Your task to perform on an android device: open app "Indeed Job Search" Image 0: 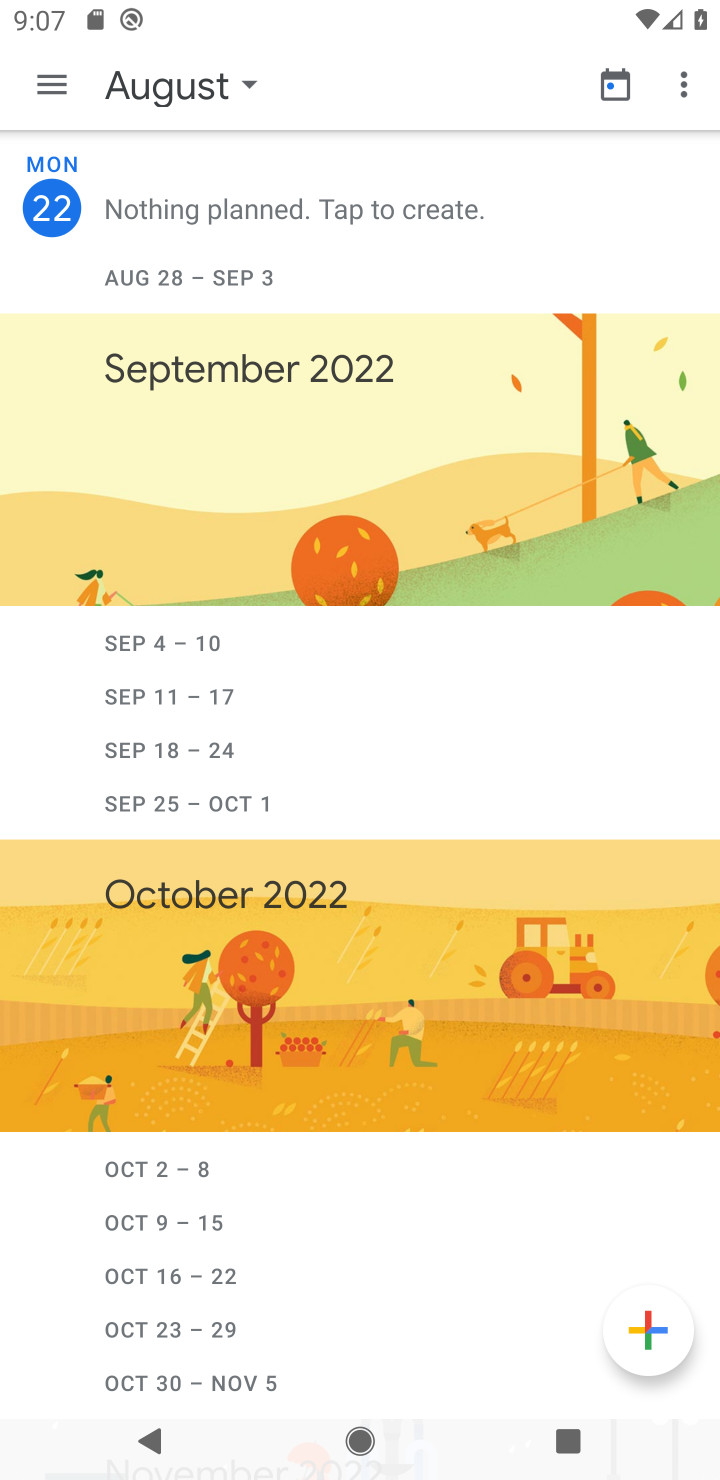
Step 0: press back button
Your task to perform on an android device: open app "Indeed Job Search" Image 1: 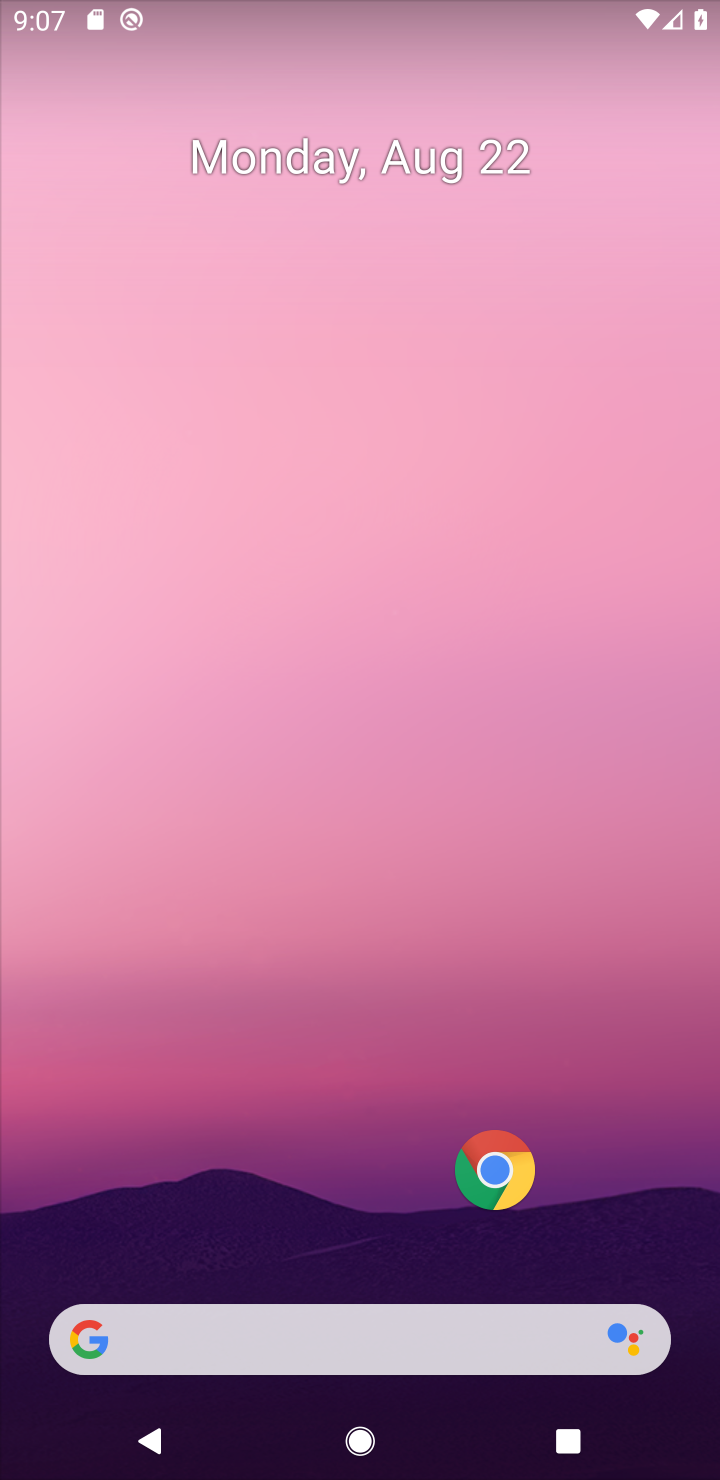
Step 1: drag from (376, 794) to (465, 107)
Your task to perform on an android device: open app "Indeed Job Search" Image 2: 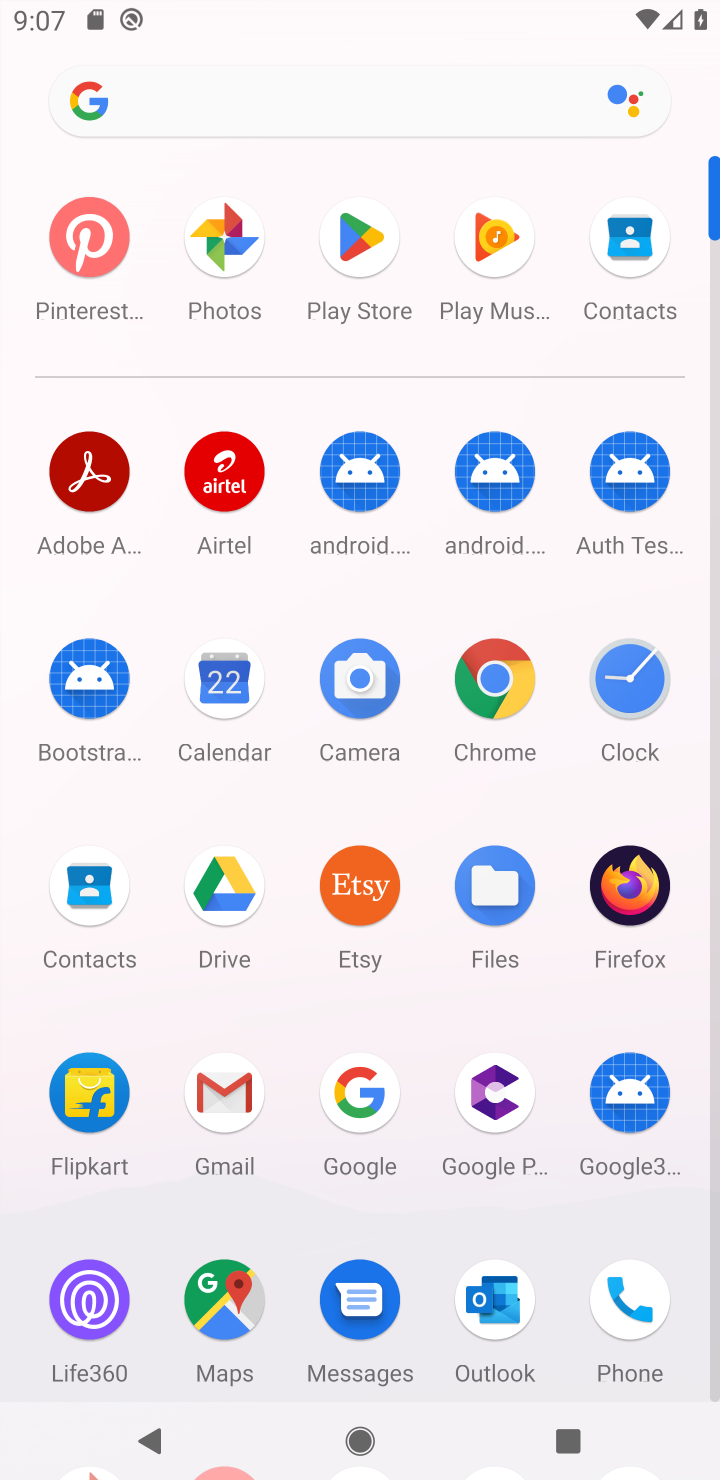
Step 2: click (369, 232)
Your task to perform on an android device: open app "Indeed Job Search" Image 3: 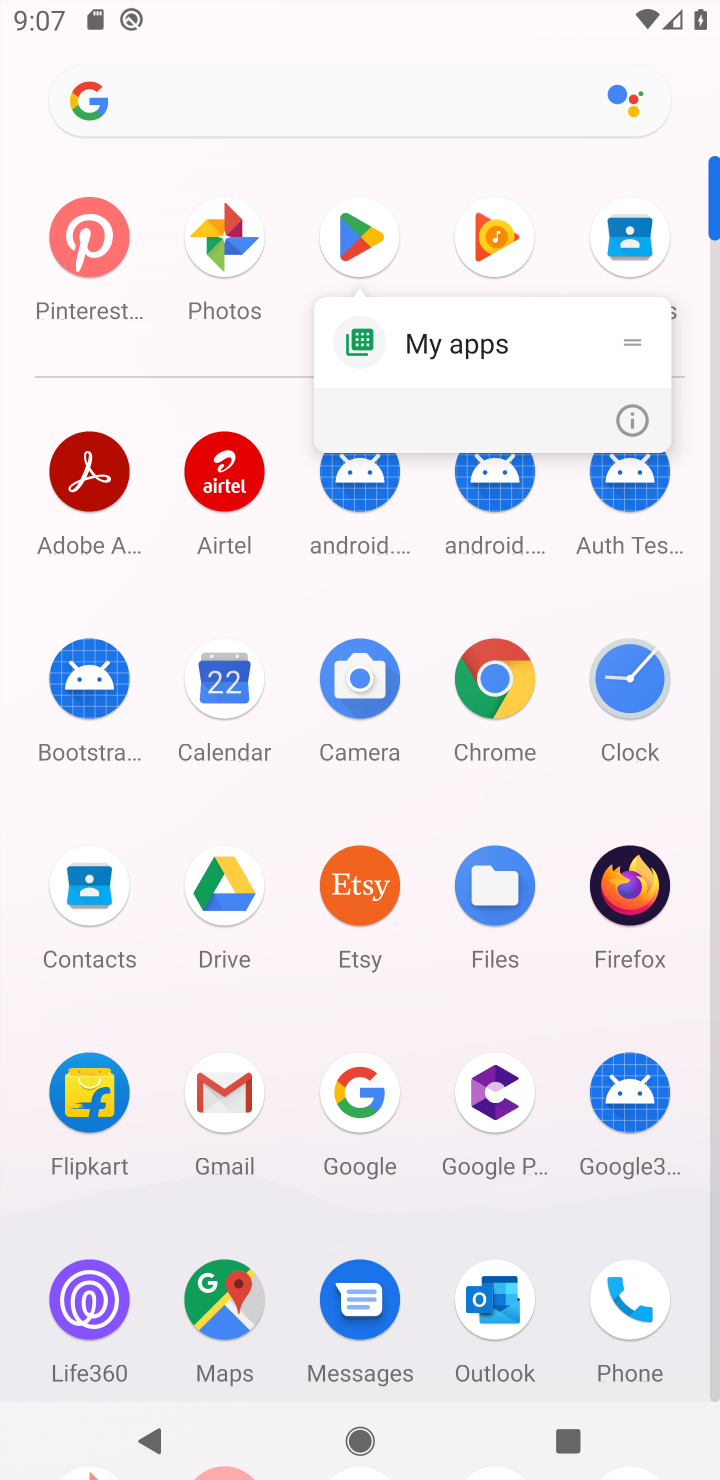
Step 3: click (347, 236)
Your task to perform on an android device: open app "Indeed Job Search" Image 4: 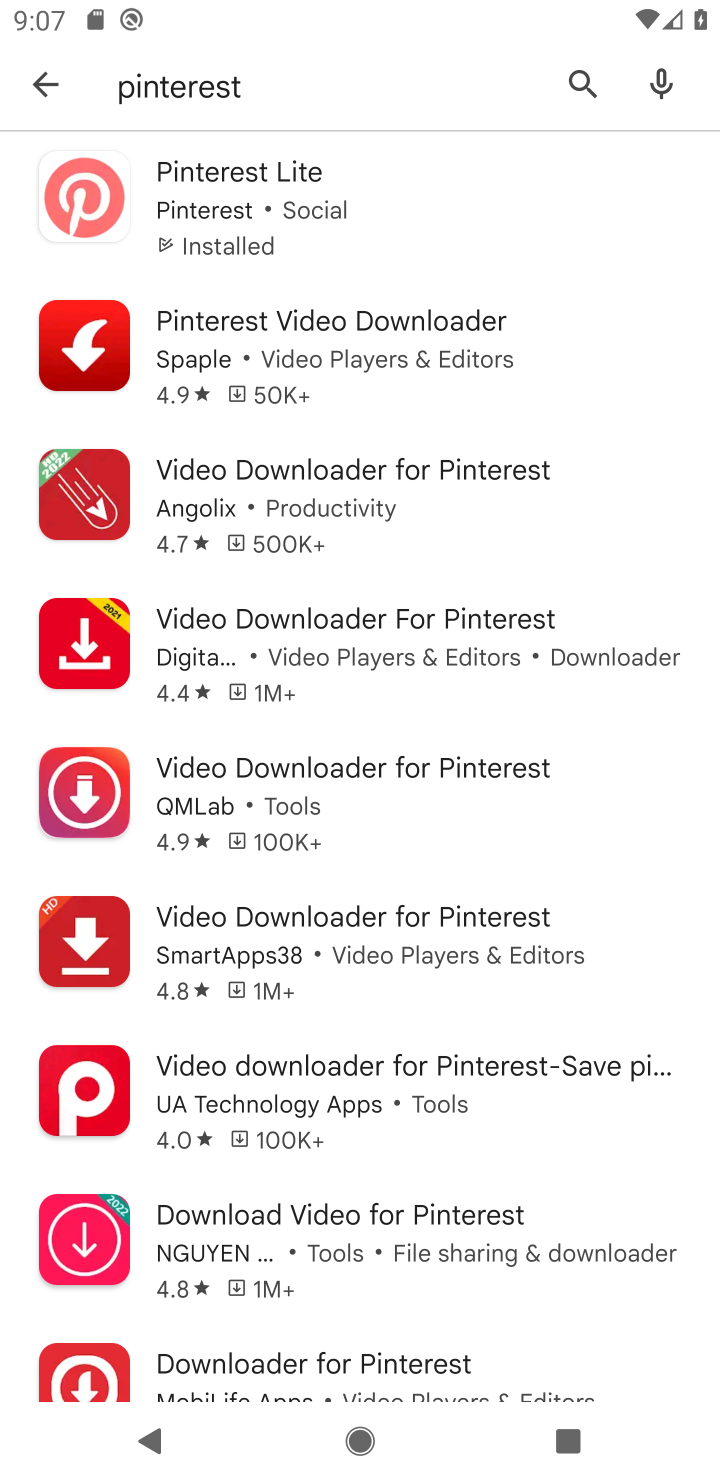
Step 4: click (581, 76)
Your task to perform on an android device: open app "Indeed Job Search" Image 5: 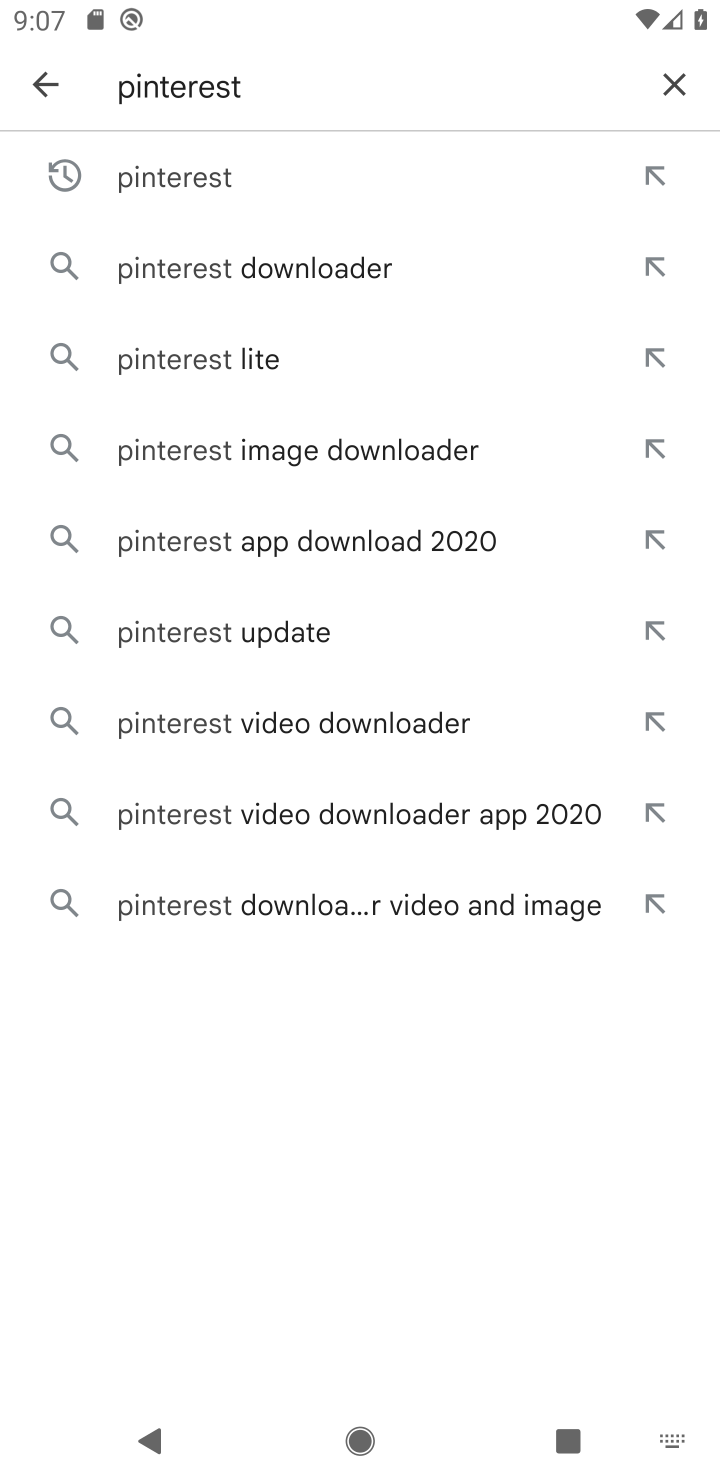
Step 5: click (654, 76)
Your task to perform on an android device: open app "Indeed Job Search" Image 6: 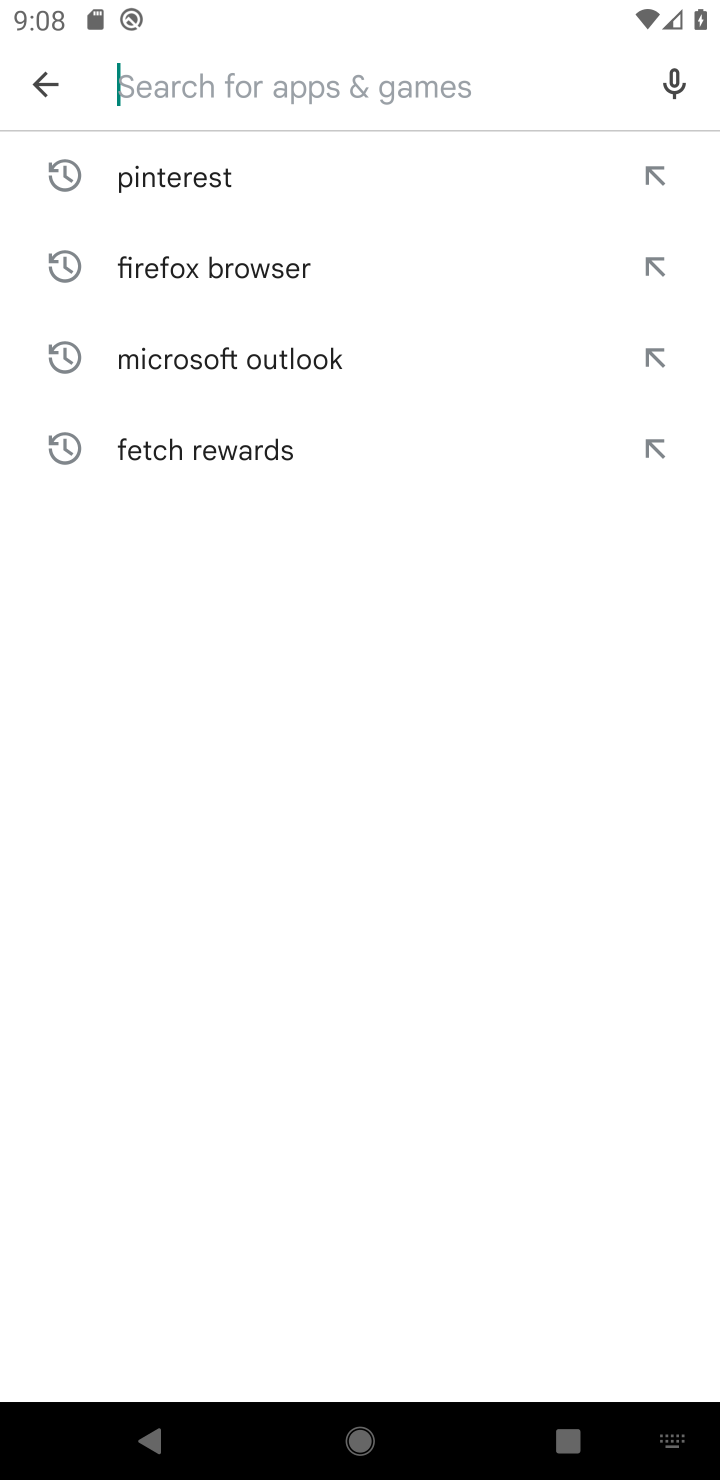
Step 6: click (195, 92)
Your task to perform on an android device: open app "Indeed Job Search" Image 7: 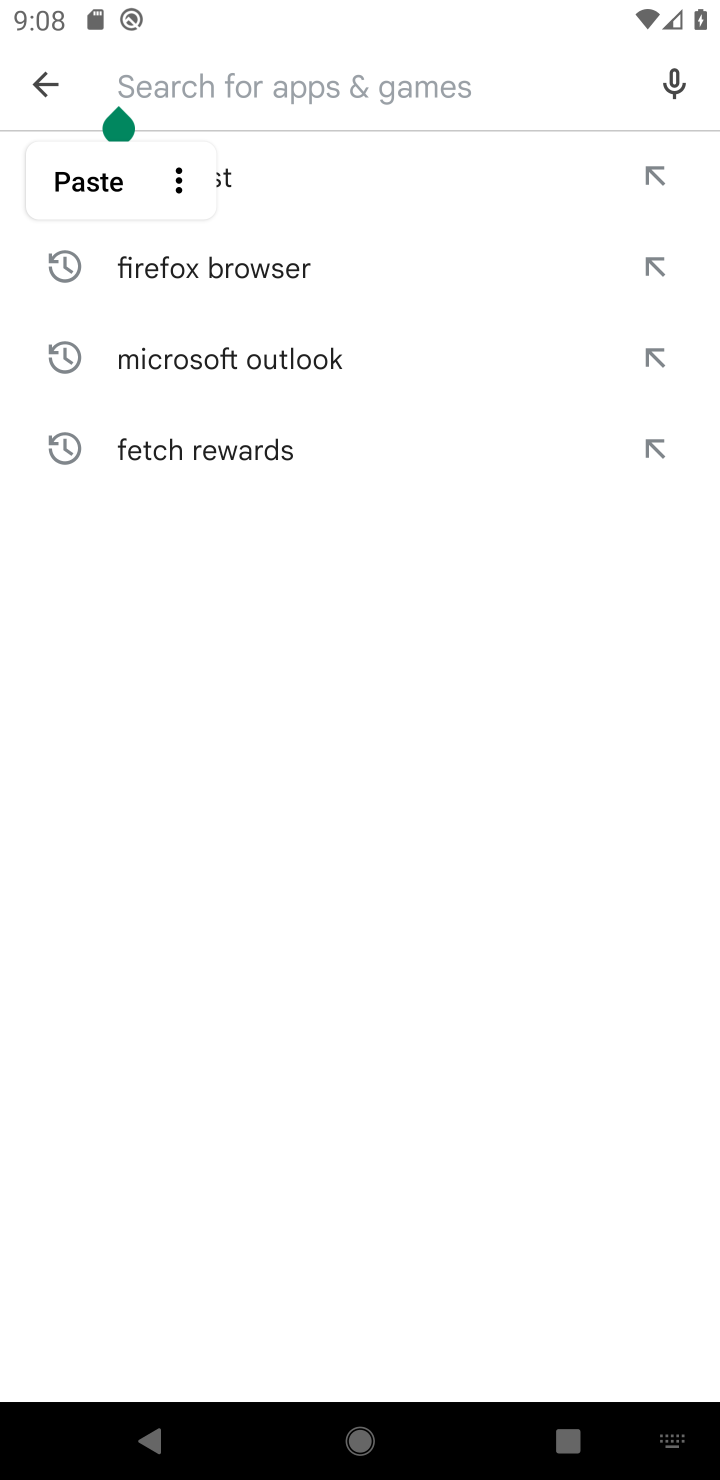
Step 7: type "Indeed Job Search"
Your task to perform on an android device: open app "Indeed Job Search" Image 8: 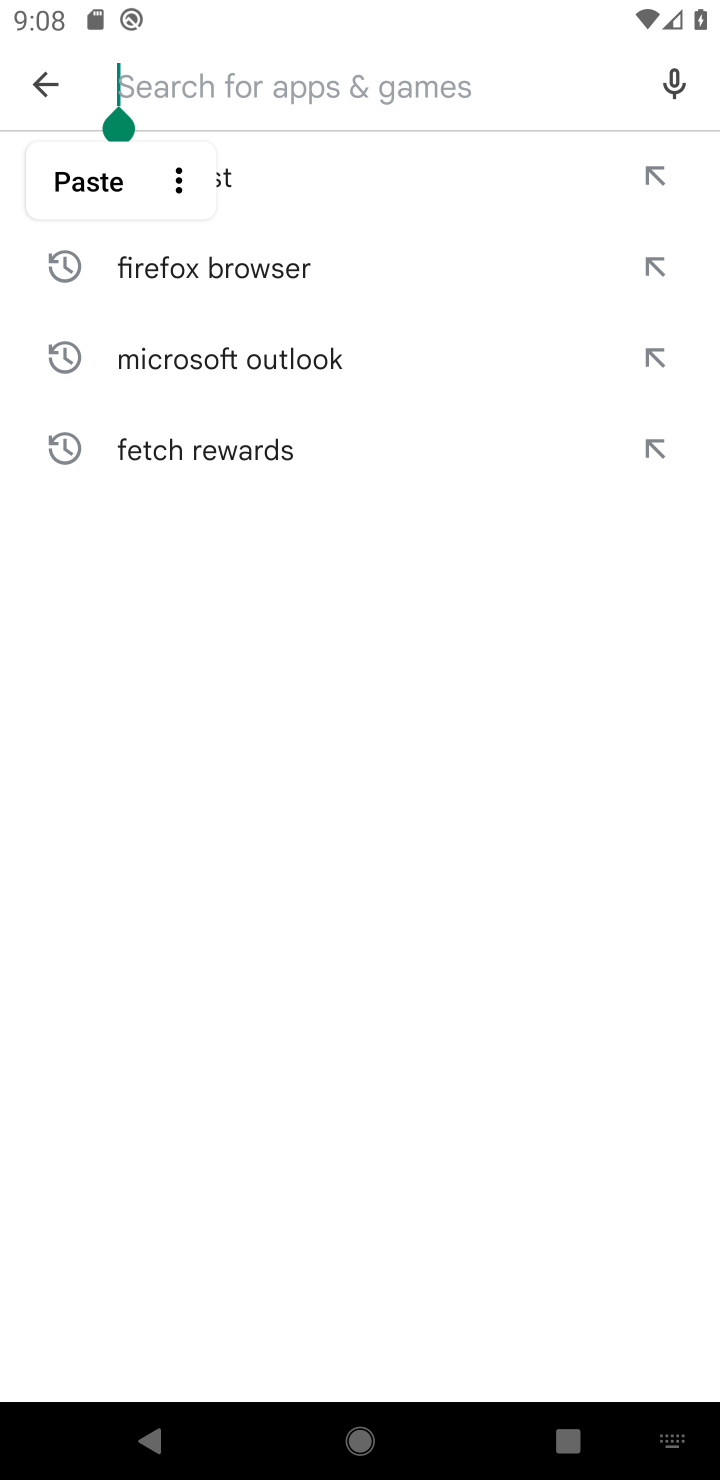
Step 8: click (367, 963)
Your task to perform on an android device: open app "Indeed Job Search" Image 9: 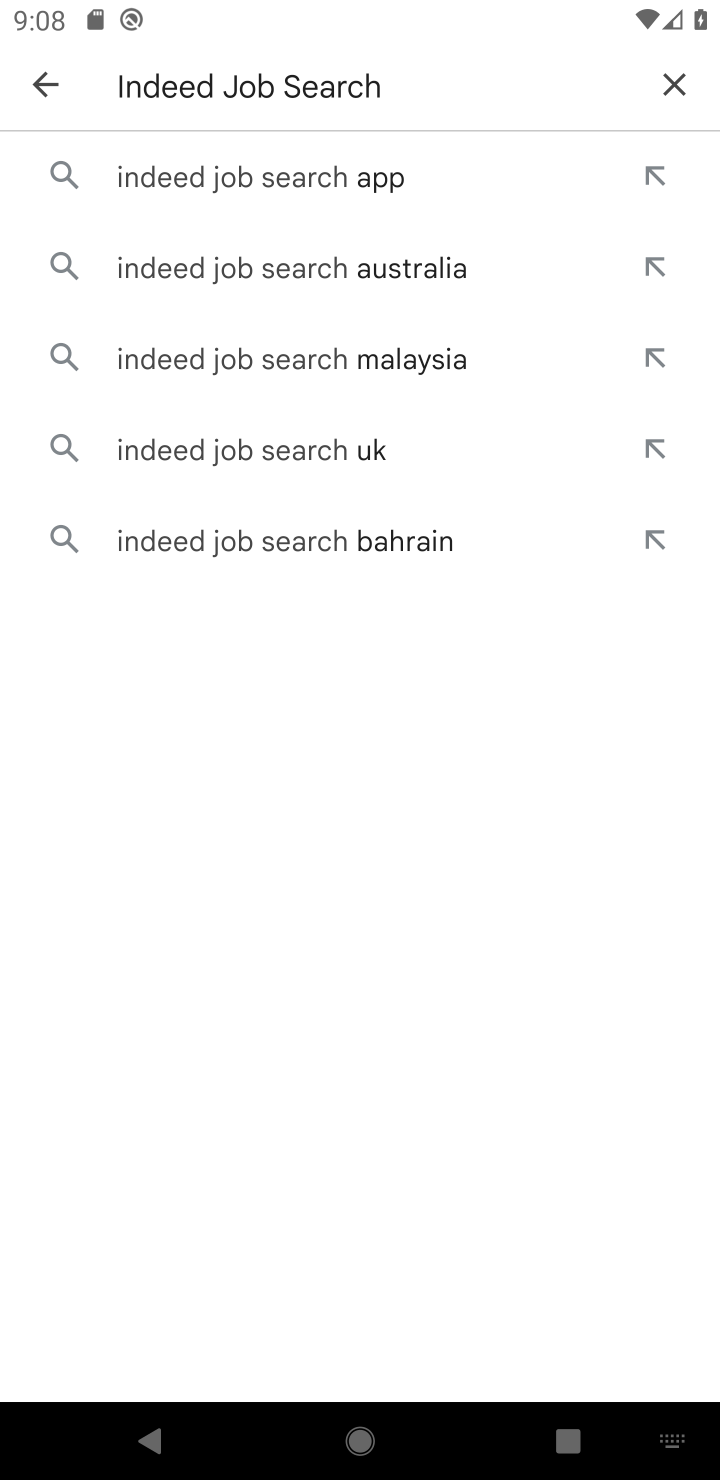
Step 9: click (344, 175)
Your task to perform on an android device: open app "Indeed Job Search" Image 10: 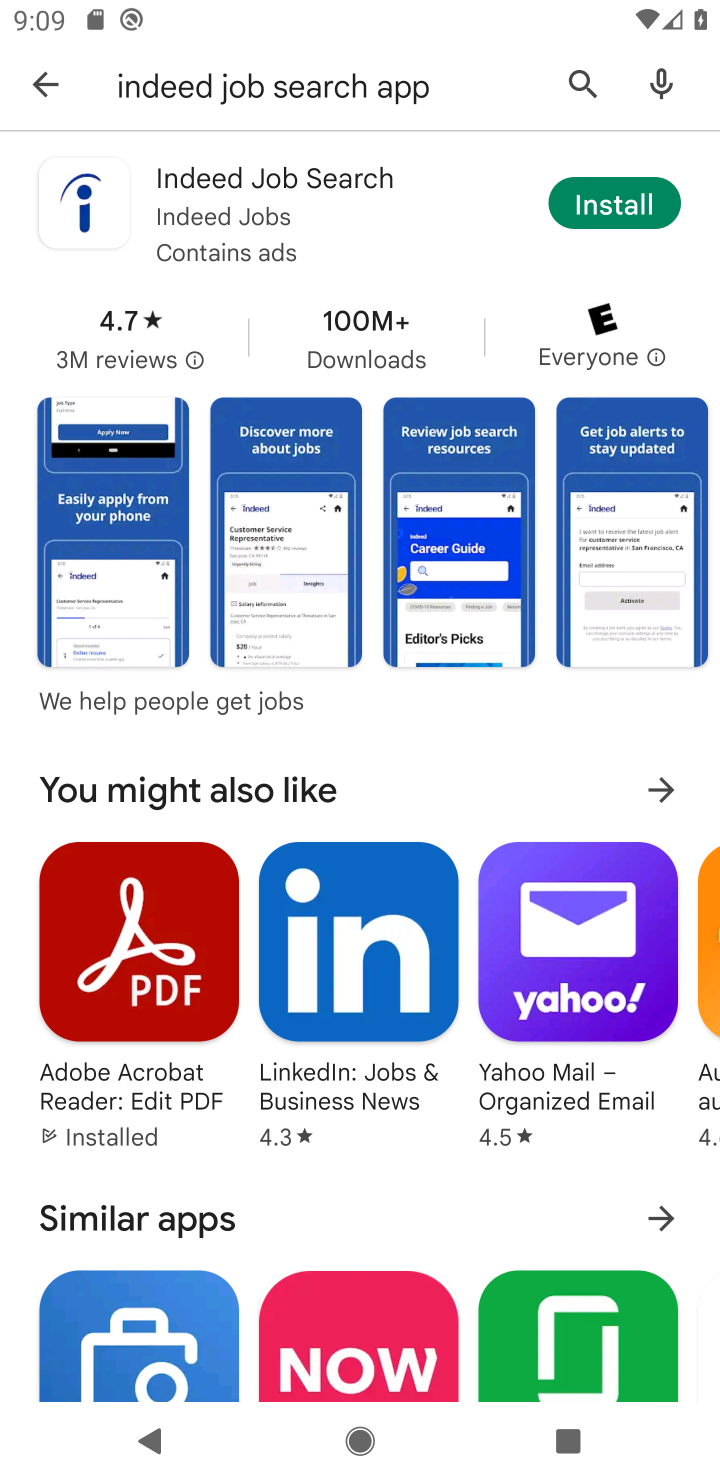
Step 10: task complete